Your task to perform on an android device: Open ESPN.com Image 0: 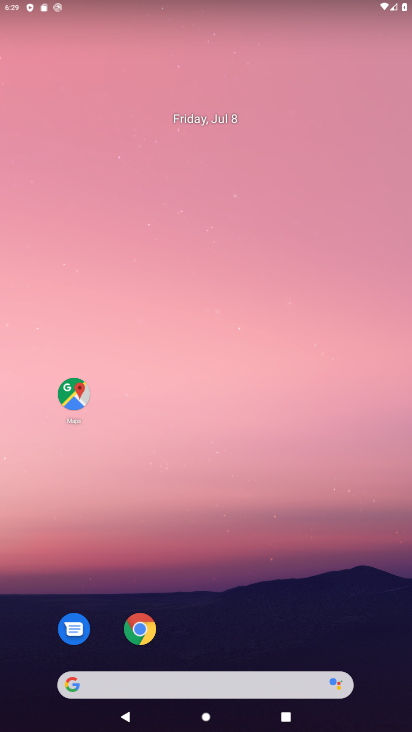
Step 0: press home button
Your task to perform on an android device: Open ESPN.com Image 1: 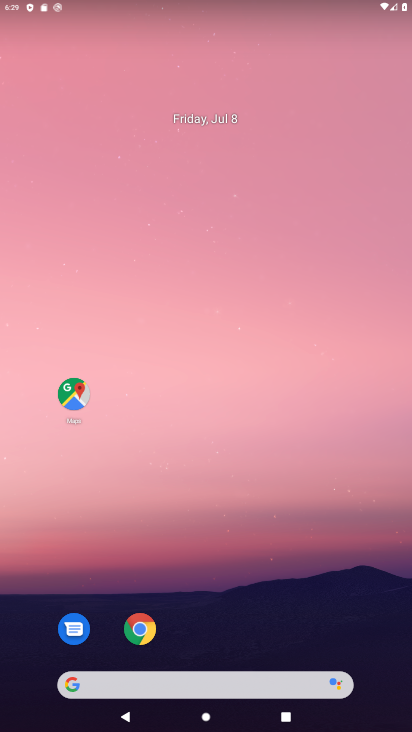
Step 1: drag from (329, 668) to (352, 152)
Your task to perform on an android device: Open ESPN.com Image 2: 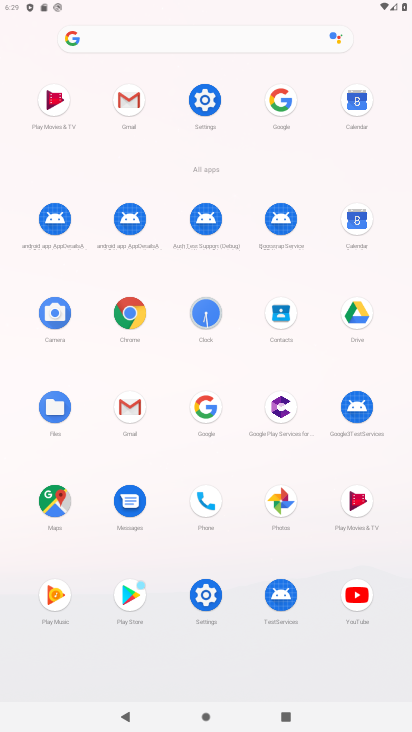
Step 2: click (134, 330)
Your task to perform on an android device: Open ESPN.com Image 3: 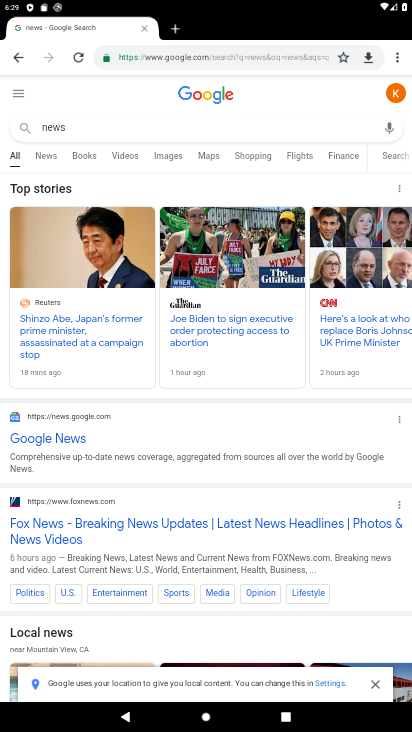
Step 3: click (171, 32)
Your task to perform on an android device: Open ESPN.com Image 4: 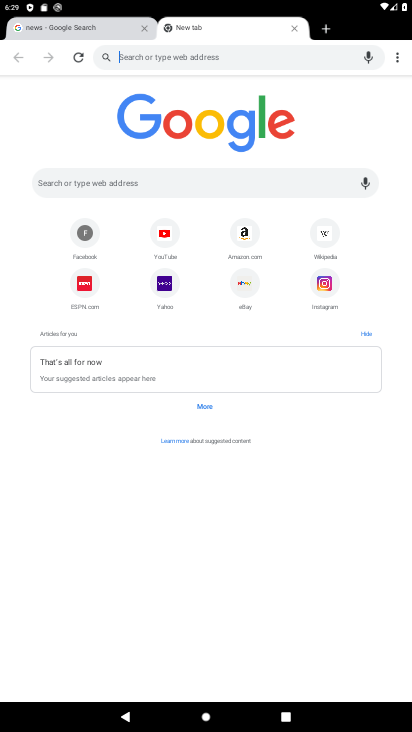
Step 4: click (93, 292)
Your task to perform on an android device: Open ESPN.com Image 5: 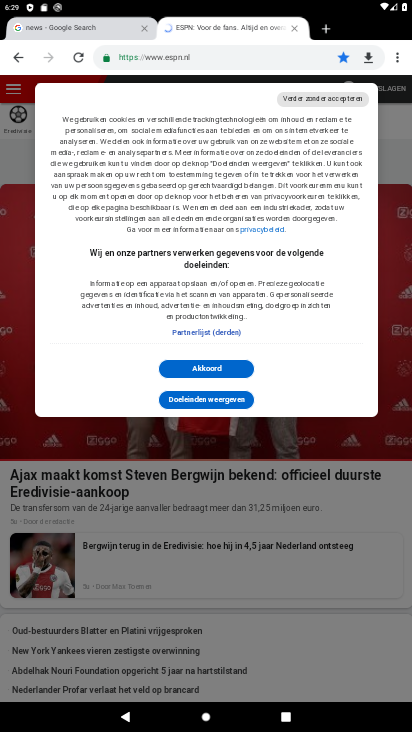
Step 5: task complete